Your task to perform on an android device: Open ESPN.com Image 0: 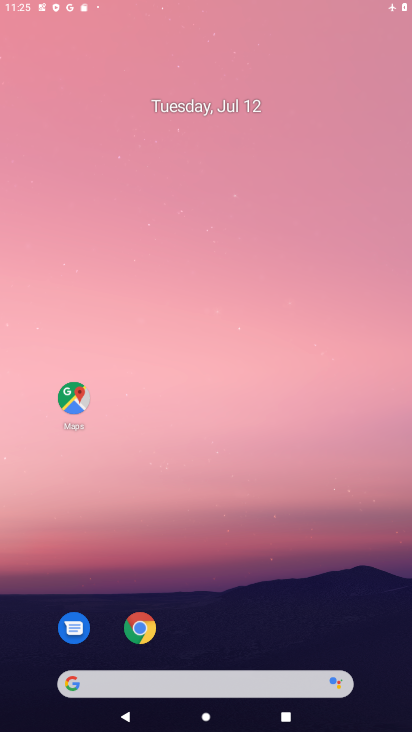
Step 0: click (257, 309)
Your task to perform on an android device: Open ESPN.com Image 1: 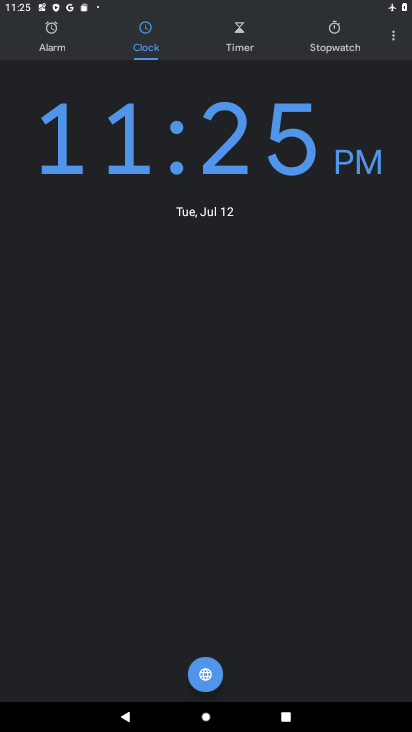
Step 1: press home button
Your task to perform on an android device: Open ESPN.com Image 2: 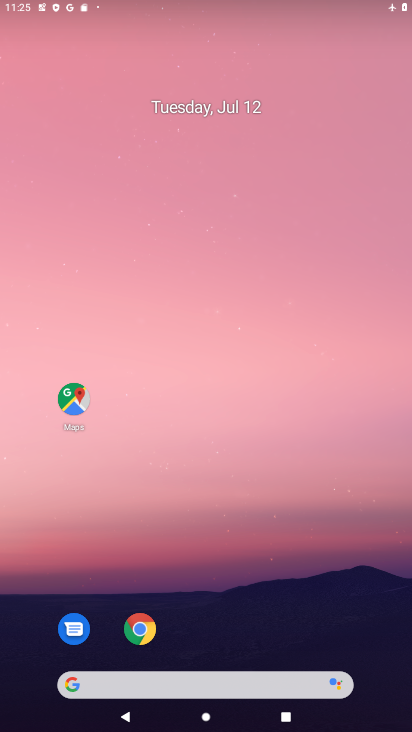
Step 2: drag from (251, 665) to (267, 234)
Your task to perform on an android device: Open ESPN.com Image 3: 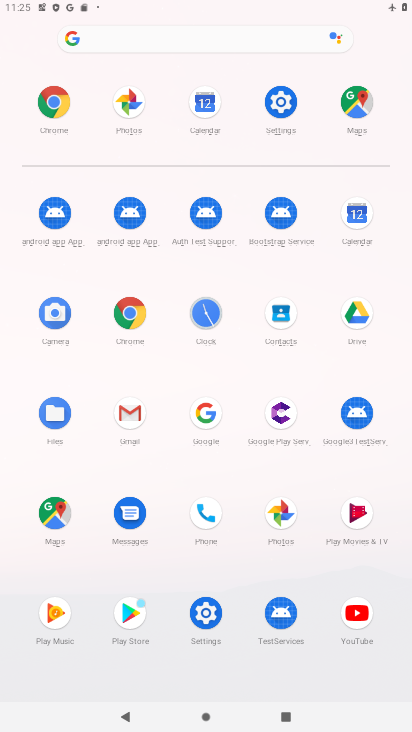
Step 3: click (50, 107)
Your task to perform on an android device: Open ESPN.com Image 4: 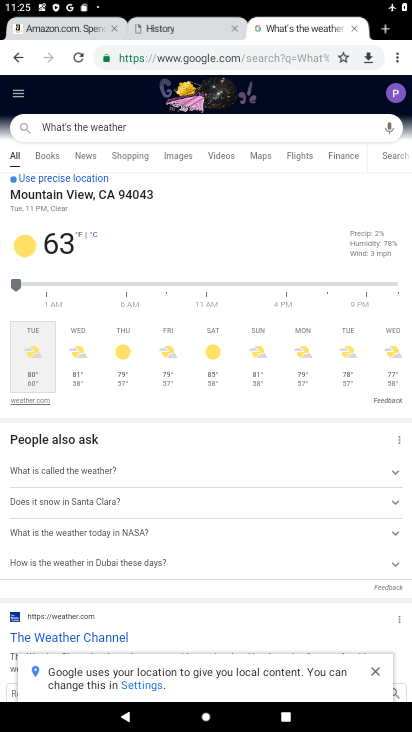
Step 4: click (397, 62)
Your task to perform on an android device: Open ESPN.com Image 5: 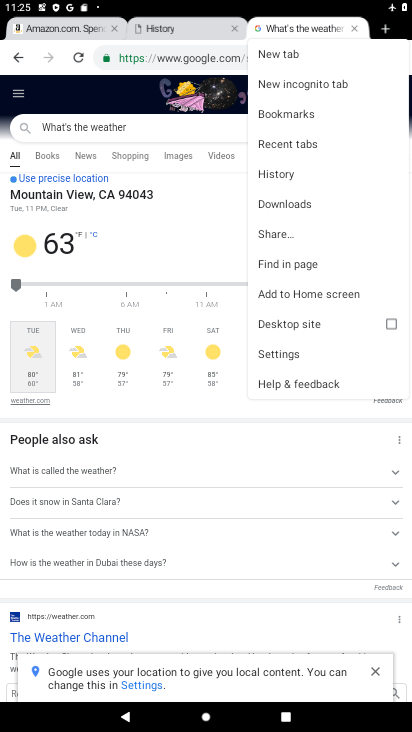
Step 5: click (269, 54)
Your task to perform on an android device: Open ESPN.com Image 6: 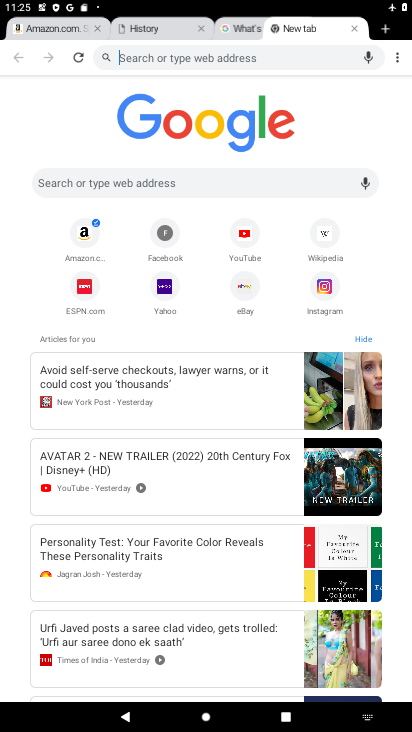
Step 6: click (89, 277)
Your task to perform on an android device: Open ESPN.com Image 7: 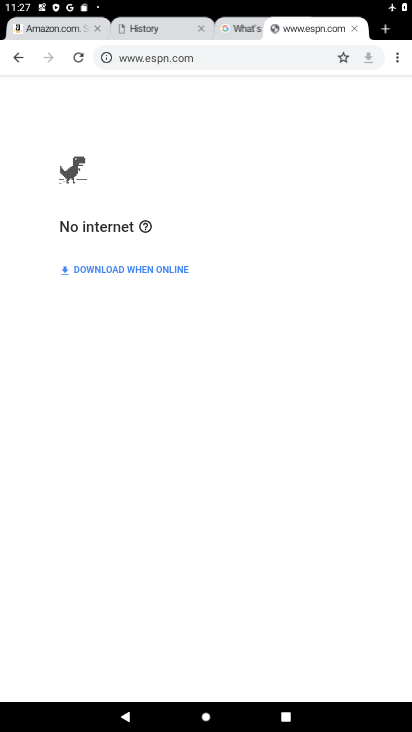
Step 7: task complete